Your task to perform on an android device: Search for sushi restaurants on Maps Image 0: 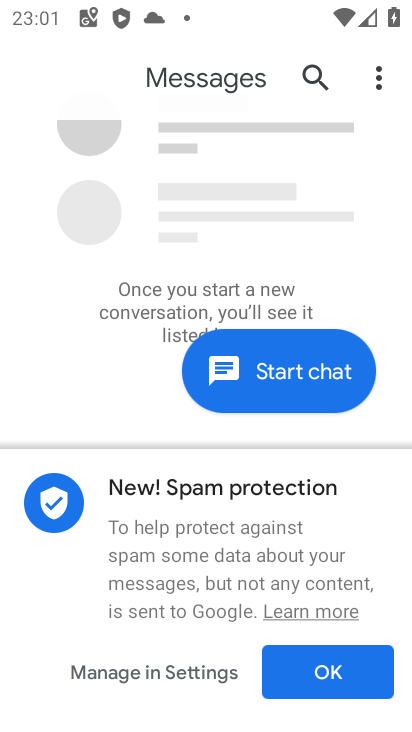
Step 0: press home button
Your task to perform on an android device: Search for sushi restaurants on Maps Image 1: 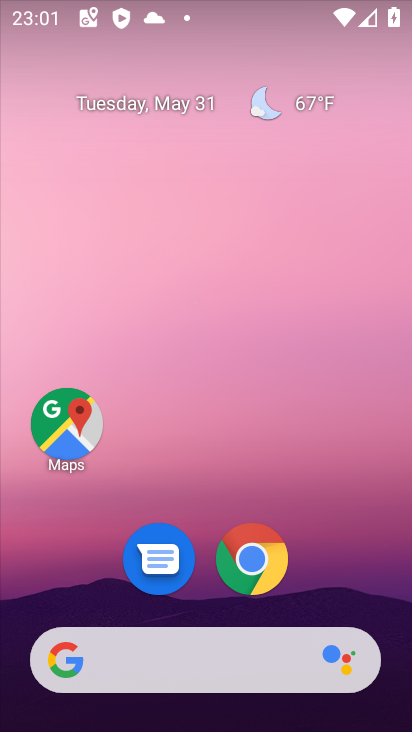
Step 1: click (64, 429)
Your task to perform on an android device: Search for sushi restaurants on Maps Image 2: 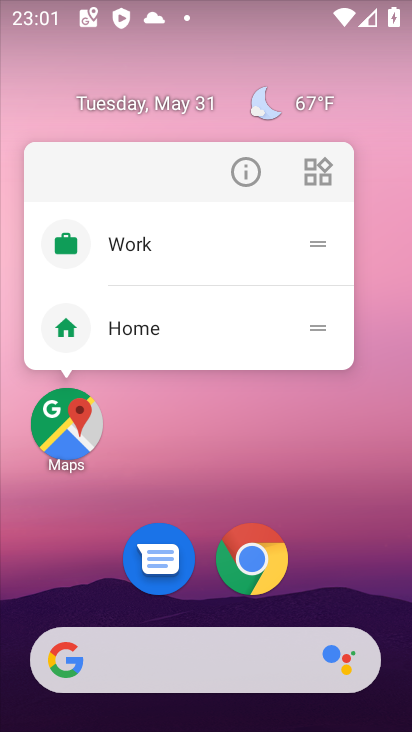
Step 2: click (64, 429)
Your task to perform on an android device: Search for sushi restaurants on Maps Image 3: 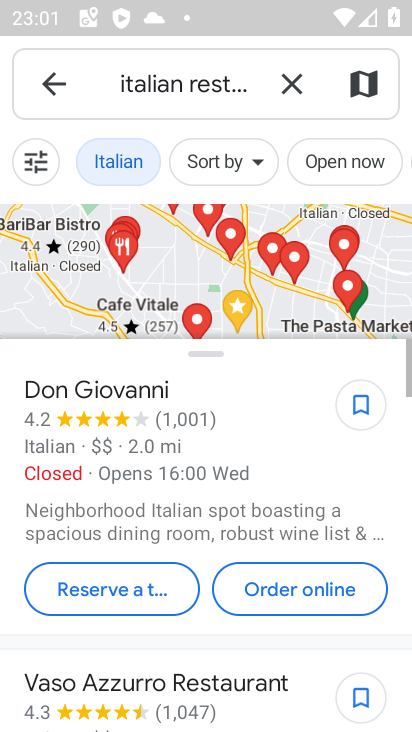
Step 3: click (283, 87)
Your task to perform on an android device: Search for sushi restaurants on Maps Image 4: 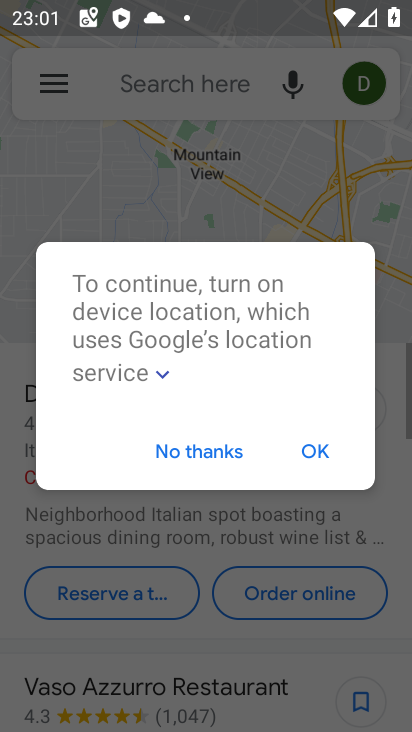
Step 4: click (218, 454)
Your task to perform on an android device: Search for sushi restaurants on Maps Image 5: 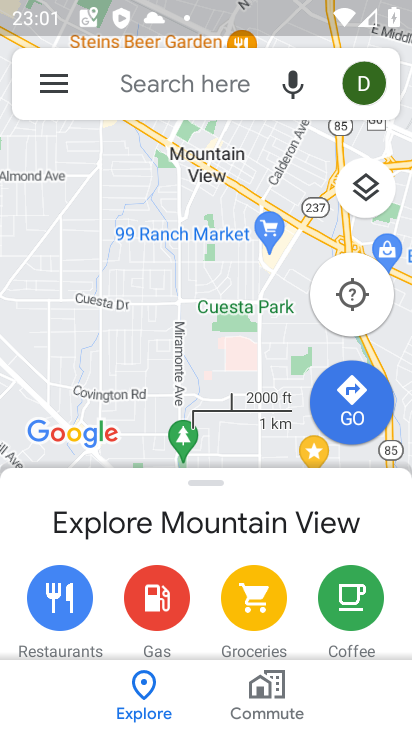
Step 5: click (150, 83)
Your task to perform on an android device: Search for sushi restaurants on Maps Image 6: 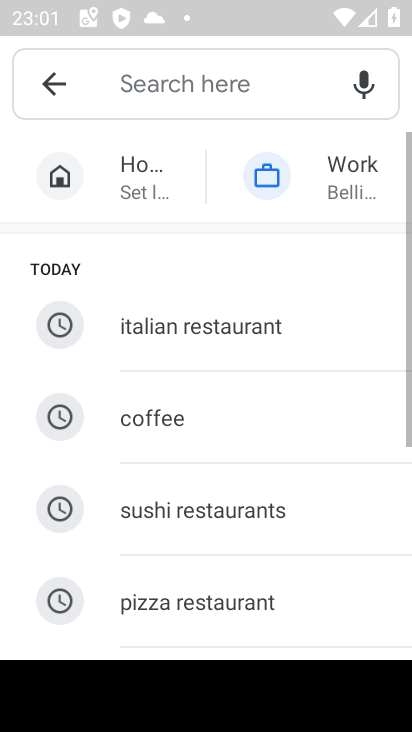
Step 6: click (182, 521)
Your task to perform on an android device: Search for sushi restaurants on Maps Image 7: 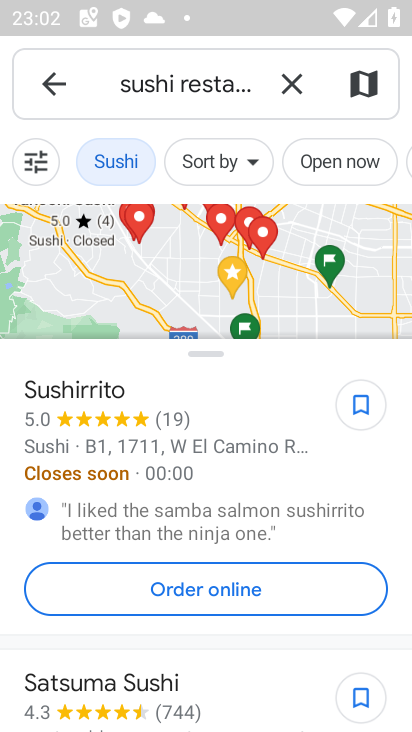
Step 7: task complete